Your task to perform on an android device: turn on notifications settings in the gmail app Image 0: 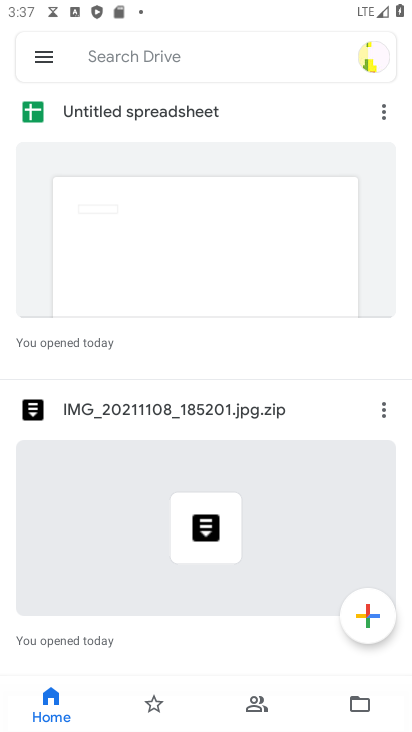
Step 0: press home button
Your task to perform on an android device: turn on notifications settings in the gmail app Image 1: 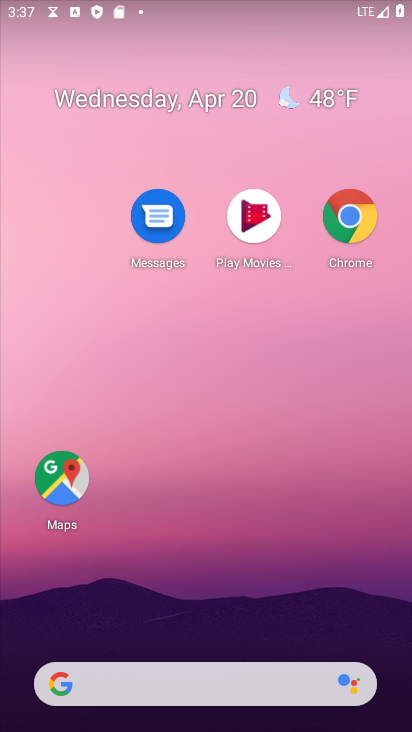
Step 1: drag from (253, 553) to (334, 39)
Your task to perform on an android device: turn on notifications settings in the gmail app Image 2: 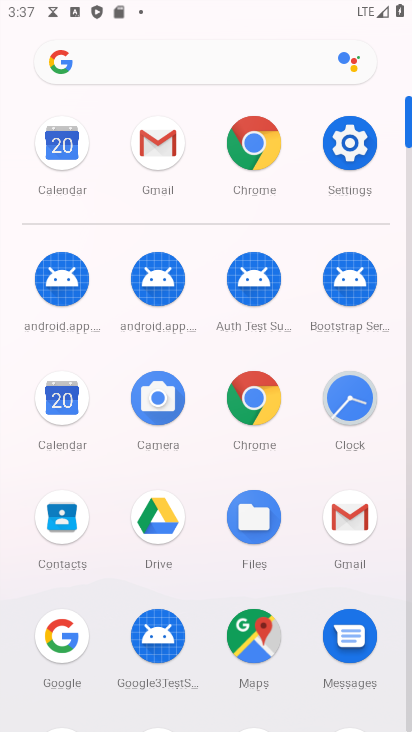
Step 2: click (342, 525)
Your task to perform on an android device: turn on notifications settings in the gmail app Image 3: 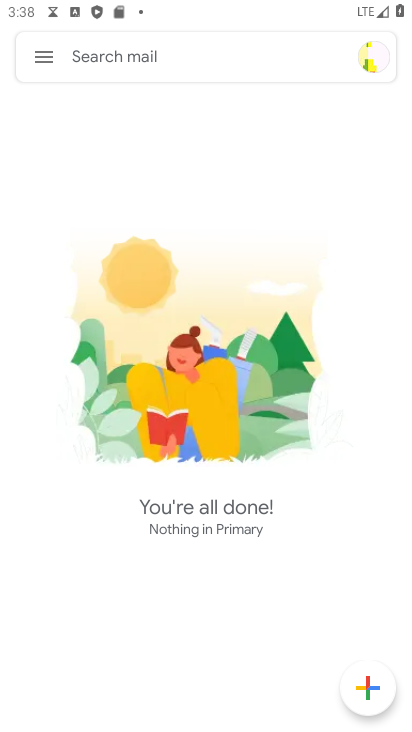
Step 3: click (44, 65)
Your task to perform on an android device: turn on notifications settings in the gmail app Image 4: 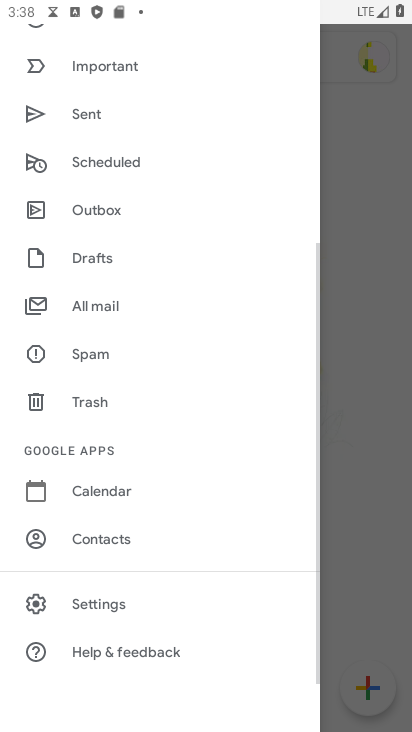
Step 4: click (136, 617)
Your task to perform on an android device: turn on notifications settings in the gmail app Image 5: 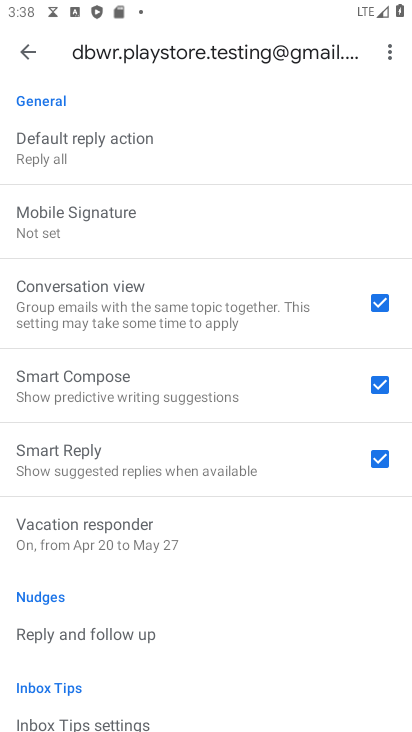
Step 5: drag from (137, 177) to (130, 551)
Your task to perform on an android device: turn on notifications settings in the gmail app Image 6: 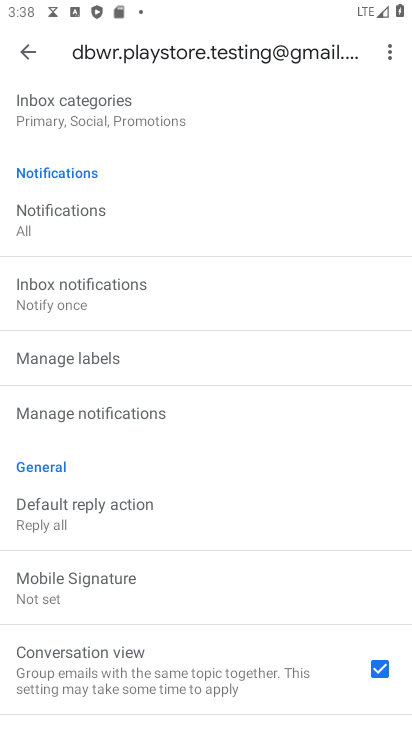
Step 6: click (136, 419)
Your task to perform on an android device: turn on notifications settings in the gmail app Image 7: 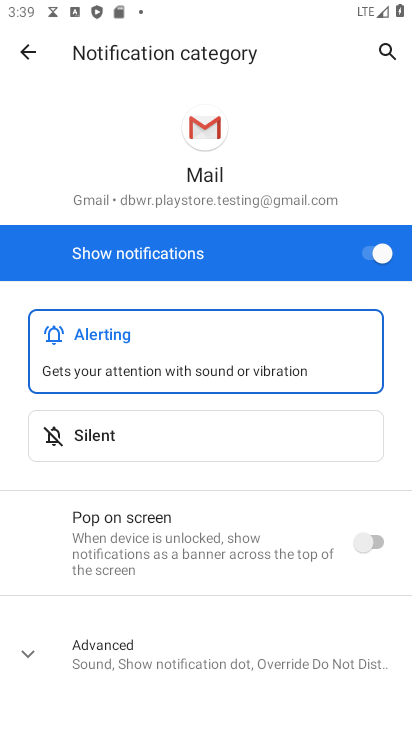
Step 7: task complete